Your task to perform on an android device: change the clock display to digital Image 0: 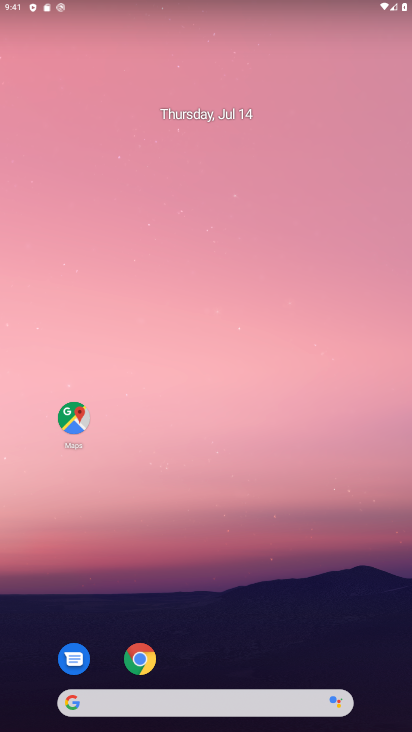
Step 0: drag from (207, 666) to (325, 53)
Your task to perform on an android device: change the clock display to digital Image 1: 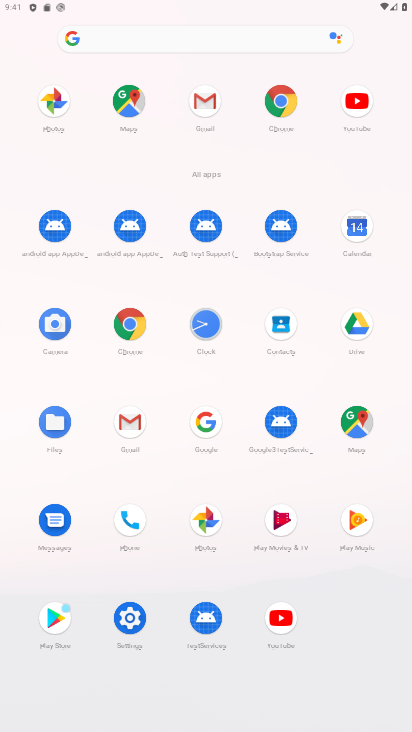
Step 1: click (202, 329)
Your task to perform on an android device: change the clock display to digital Image 2: 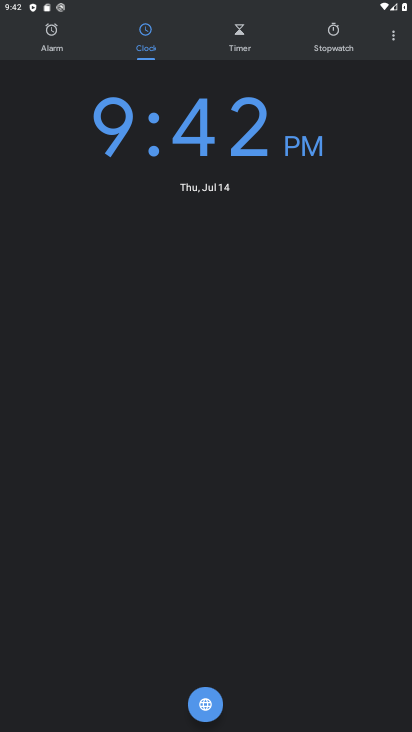
Step 2: click (388, 33)
Your task to perform on an android device: change the clock display to digital Image 3: 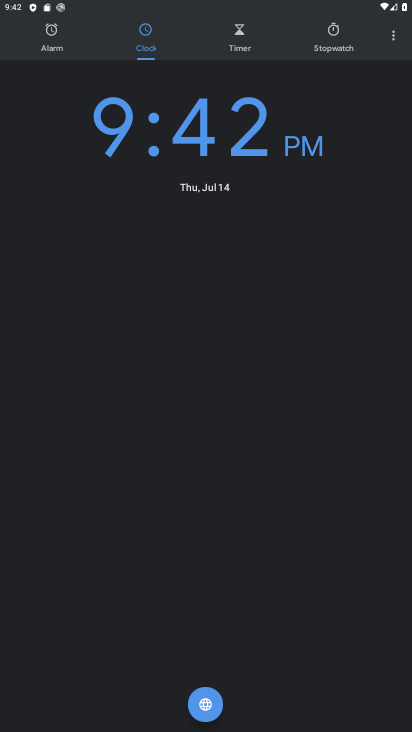
Step 3: click (392, 37)
Your task to perform on an android device: change the clock display to digital Image 4: 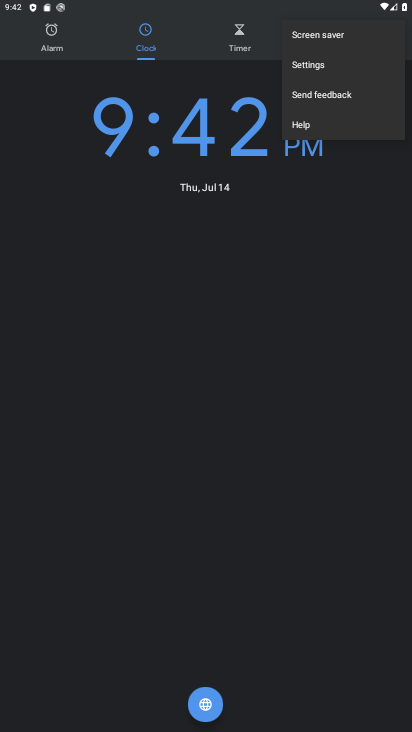
Step 4: click (328, 65)
Your task to perform on an android device: change the clock display to digital Image 5: 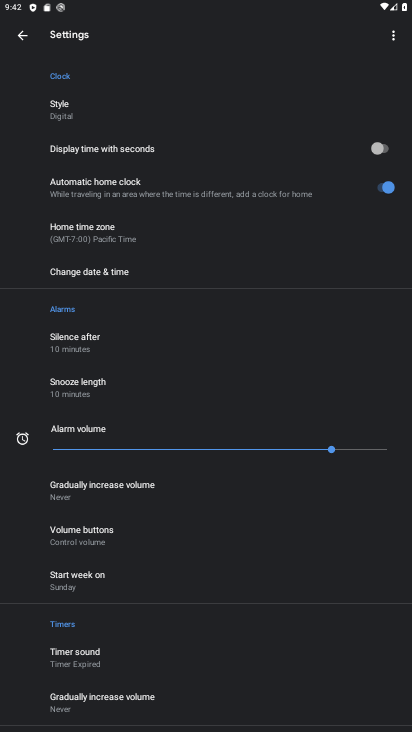
Step 5: task complete